Your task to perform on an android device: Open the Play Movies app and select the watchlist tab. Image 0: 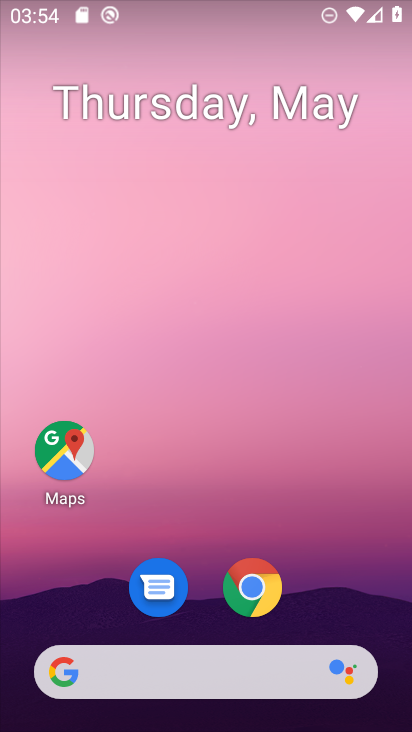
Step 0: drag from (373, 572) to (377, 212)
Your task to perform on an android device: Open the Play Movies app and select the watchlist tab. Image 1: 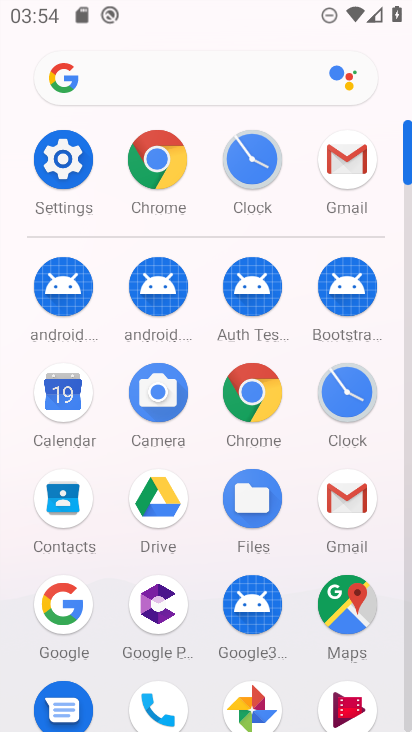
Step 1: drag from (293, 664) to (286, 529)
Your task to perform on an android device: Open the Play Movies app and select the watchlist tab. Image 2: 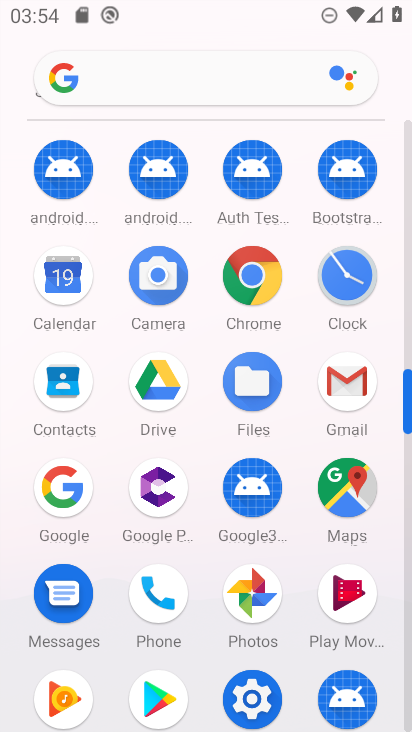
Step 2: click (331, 601)
Your task to perform on an android device: Open the Play Movies app and select the watchlist tab. Image 3: 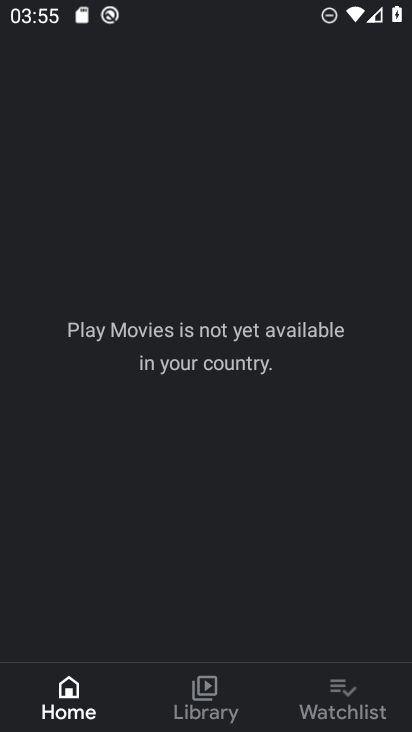
Step 3: click (310, 710)
Your task to perform on an android device: Open the Play Movies app and select the watchlist tab. Image 4: 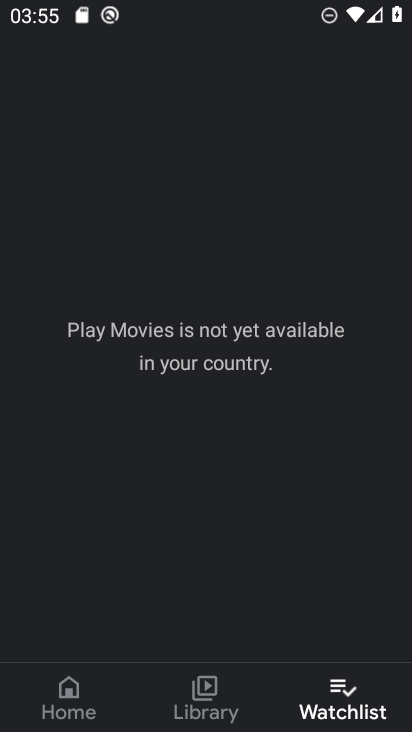
Step 4: task complete